Your task to perform on an android device: Open Google Maps and go to "Timeline" Image 0: 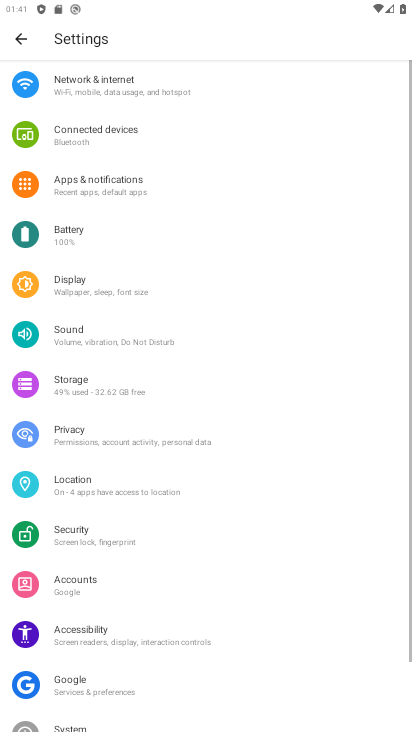
Step 0: press home button
Your task to perform on an android device: Open Google Maps and go to "Timeline" Image 1: 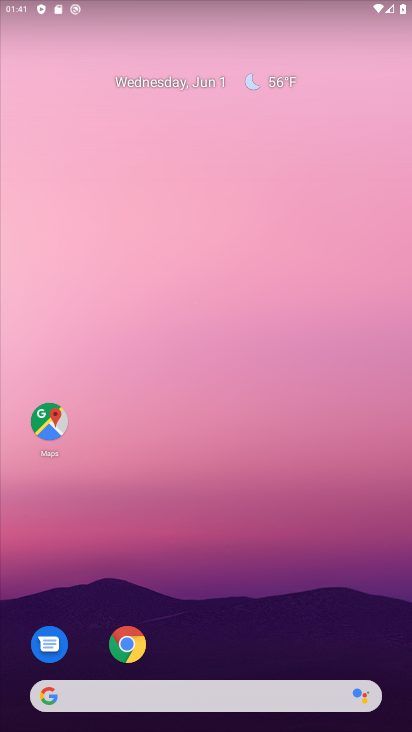
Step 1: click (55, 429)
Your task to perform on an android device: Open Google Maps and go to "Timeline" Image 2: 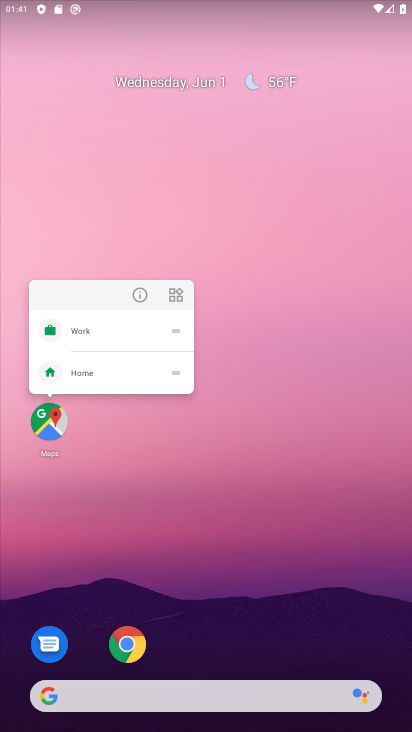
Step 2: click (58, 411)
Your task to perform on an android device: Open Google Maps and go to "Timeline" Image 3: 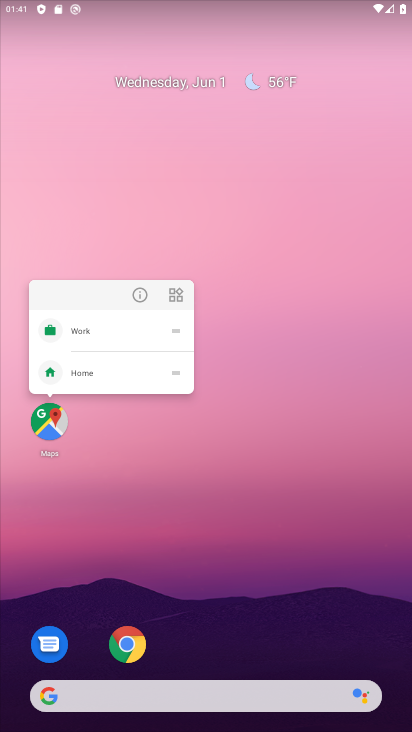
Step 3: click (49, 438)
Your task to perform on an android device: Open Google Maps and go to "Timeline" Image 4: 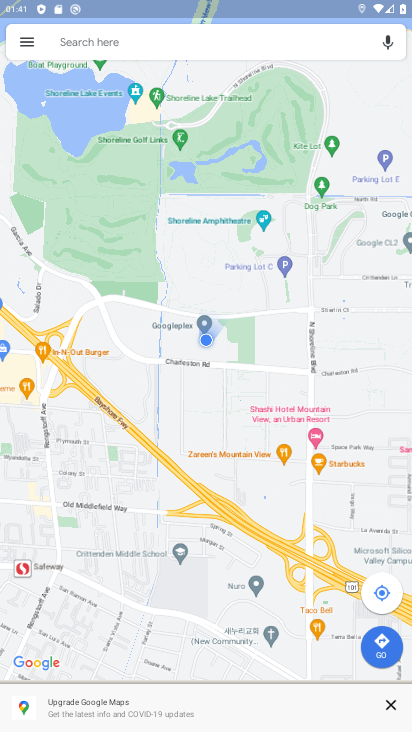
Step 4: click (21, 48)
Your task to perform on an android device: Open Google Maps and go to "Timeline" Image 5: 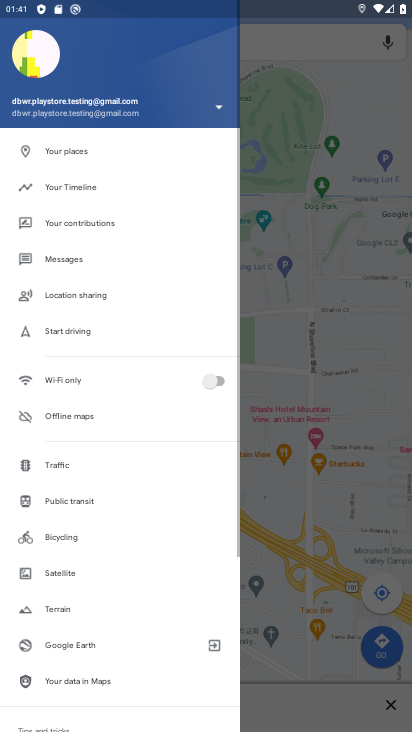
Step 5: click (46, 189)
Your task to perform on an android device: Open Google Maps and go to "Timeline" Image 6: 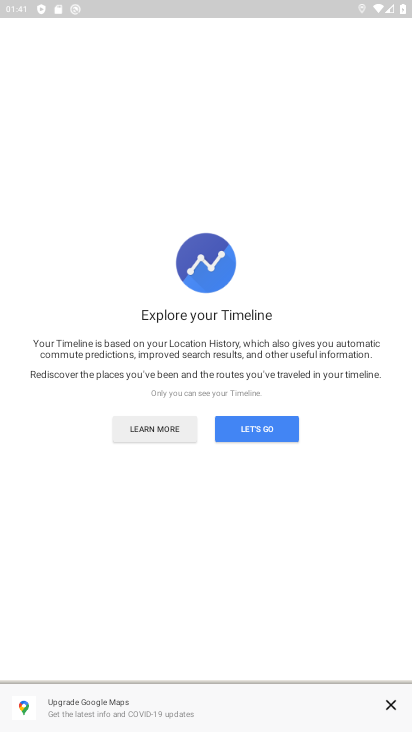
Step 6: click (254, 429)
Your task to perform on an android device: Open Google Maps and go to "Timeline" Image 7: 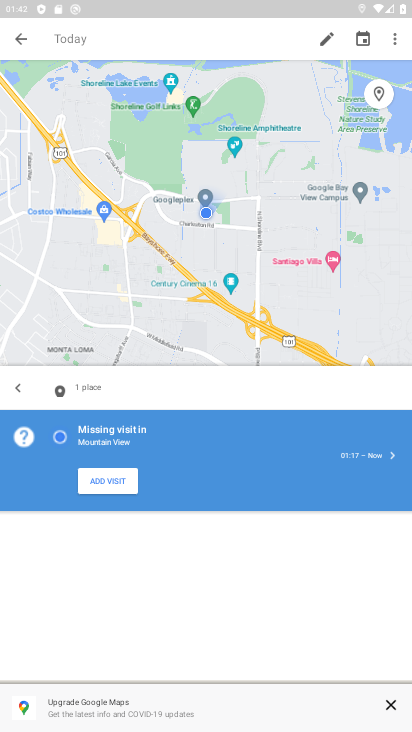
Step 7: task complete